Your task to perform on an android device: turn on notifications settings in the gmail app Image 0: 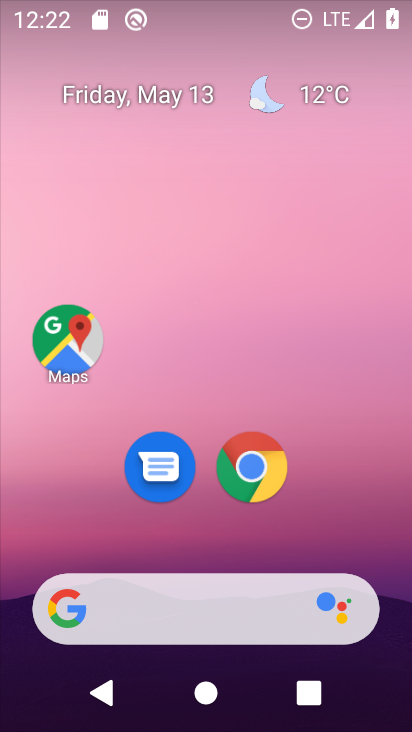
Step 0: drag from (322, 500) to (264, 43)
Your task to perform on an android device: turn on notifications settings in the gmail app Image 1: 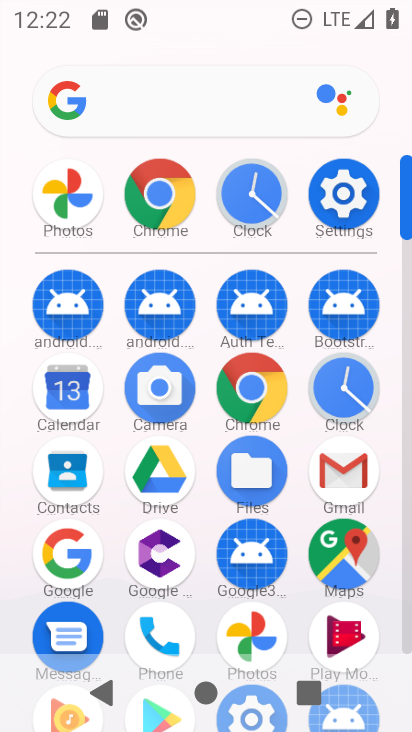
Step 1: drag from (9, 556) to (18, 234)
Your task to perform on an android device: turn on notifications settings in the gmail app Image 2: 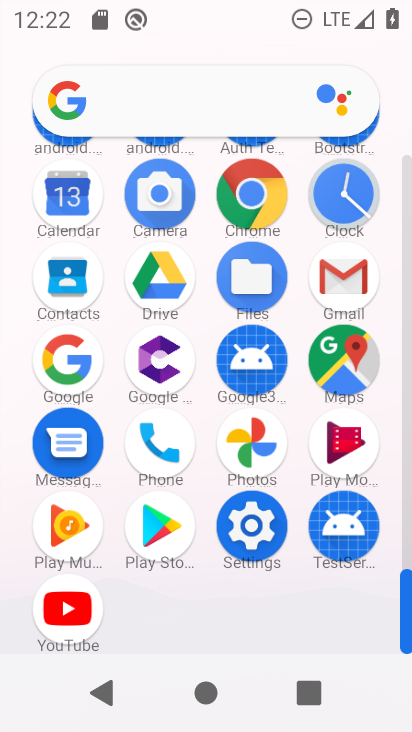
Step 2: click (350, 270)
Your task to perform on an android device: turn on notifications settings in the gmail app Image 3: 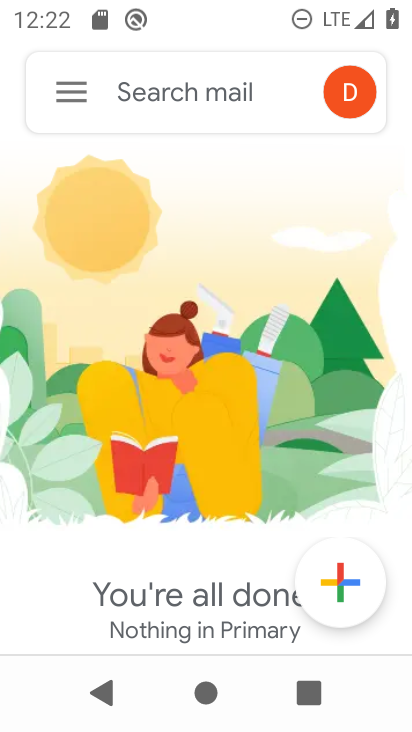
Step 3: click (73, 88)
Your task to perform on an android device: turn on notifications settings in the gmail app Image 4: 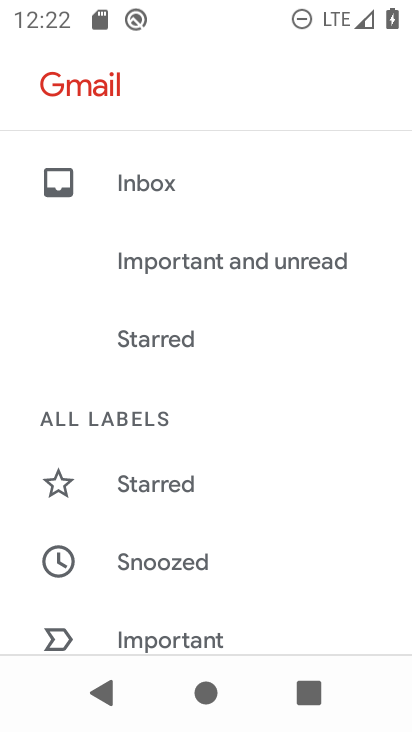
Step 4: drag from (299, 513) to (311, 126)
Your task to perform on an android device: turn on notifications settings in the gmail app Image 5: 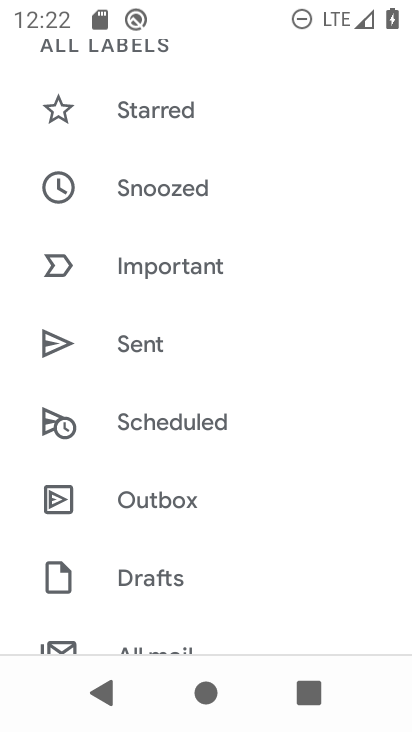
Step 5: drag from (282, 581) to (266, 151)
Your task to perform on an android device: turn on notifications settings in the gmail app Image 6: 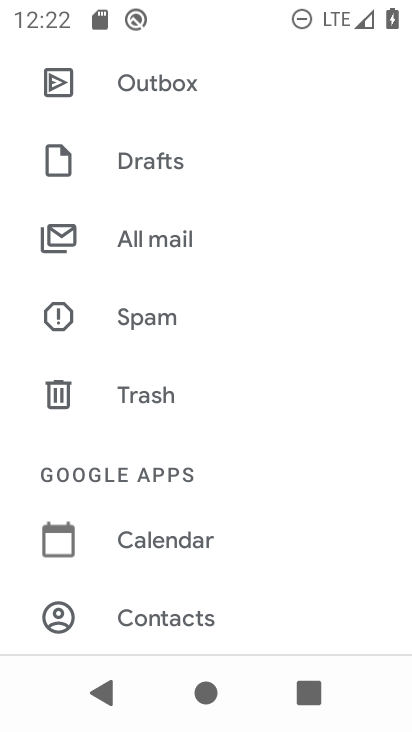
Step 6: drag from (212, 561) to (215, 185)
Your task to perform on an android device: turn on notifications settings in the gmail app Image 7: 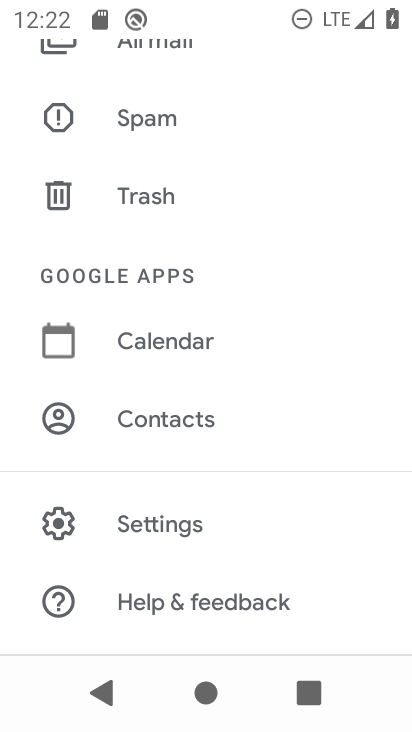
Step 7: click (198, 520)
Your task to perform on an android device: turn on notifications settings in the gmail app Image 8: 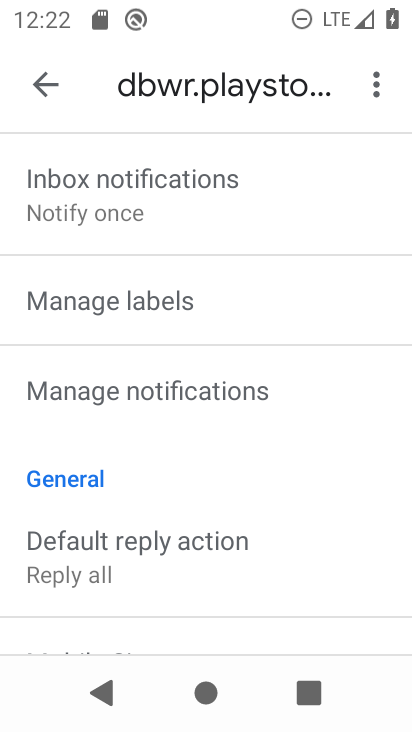
Step 8: click (187, 378)
Your task to perform on an android device: turn on notifications settings in the gmail app Image 9: 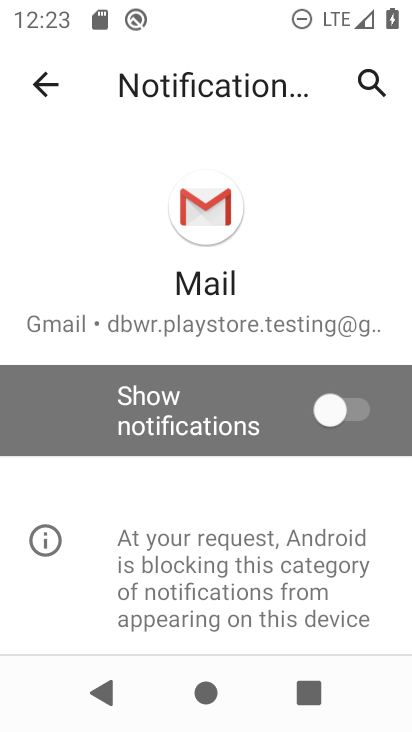
Step 9: click (356, 414)
Your task to perform on an android device: turn on notifications settings in the gmail app Image 10: 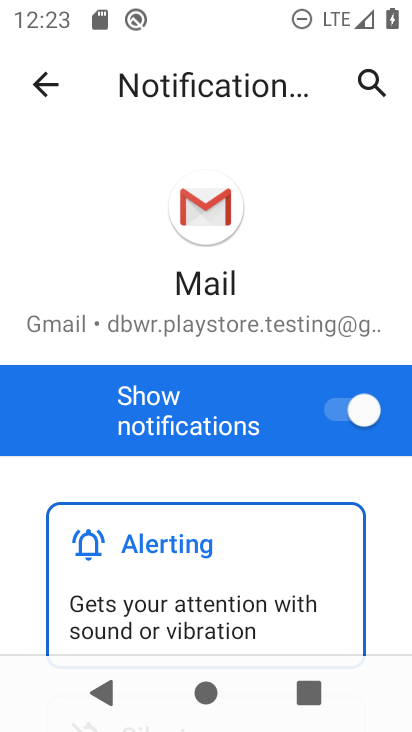
Step 10: task complete